Your task to perform on an android device: What's on my calendar today? Image 0: 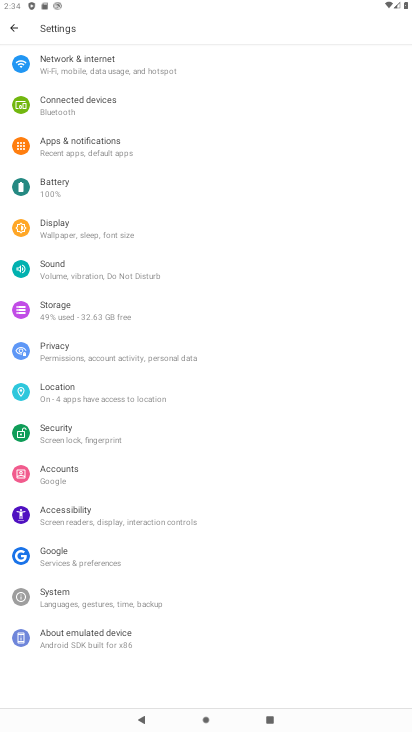
Step 0: press home button
Your task to perform on an android device: What's on my calendar today? Image 1: 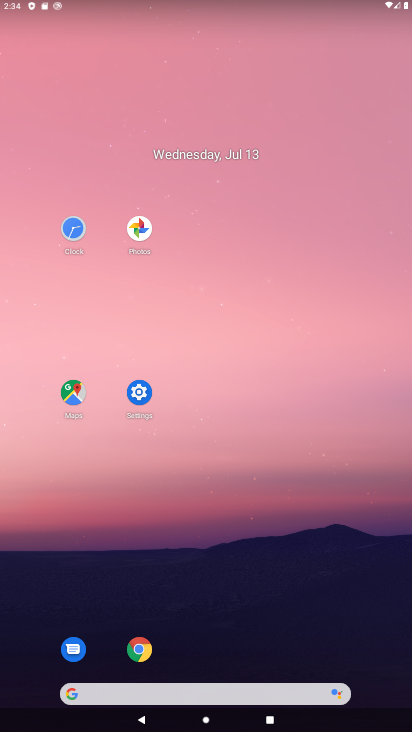
Step 1: drag from (259, 491) to (331, 52)
Your task to perform on an android device: What's on my calendar today? Image 2: 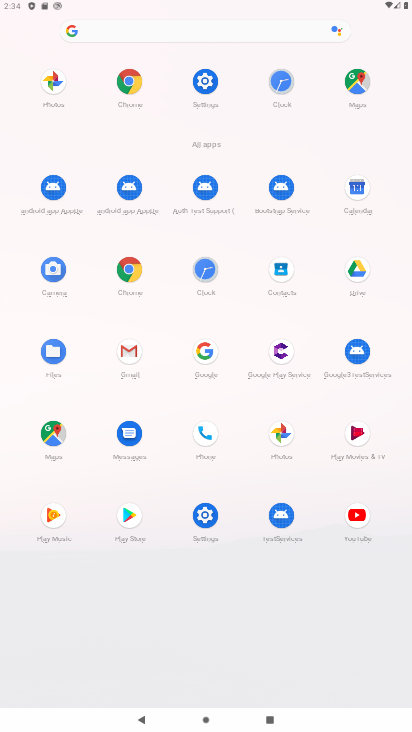
Step 2: click (356, 191)
Your task to perform on an android device: What's on my calendar today? Image 3: 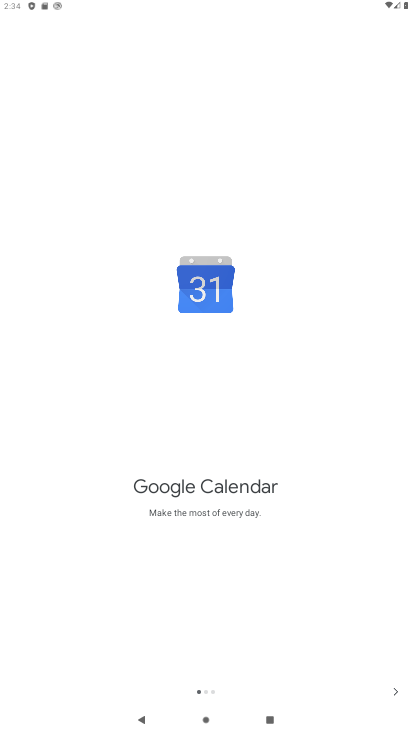
Step 3: click (400, 691)
Your task to perform on an android device: What's on my calendar today? Image 4: 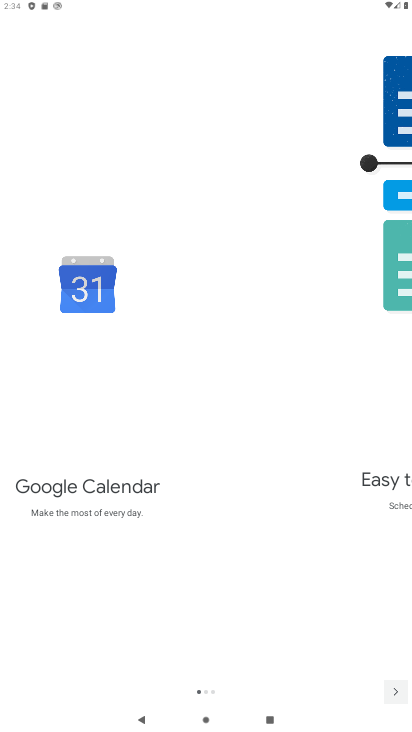
Step 4: click (399, 691)
Your task to perform on an android device: What's on my calendar today? Image 5: 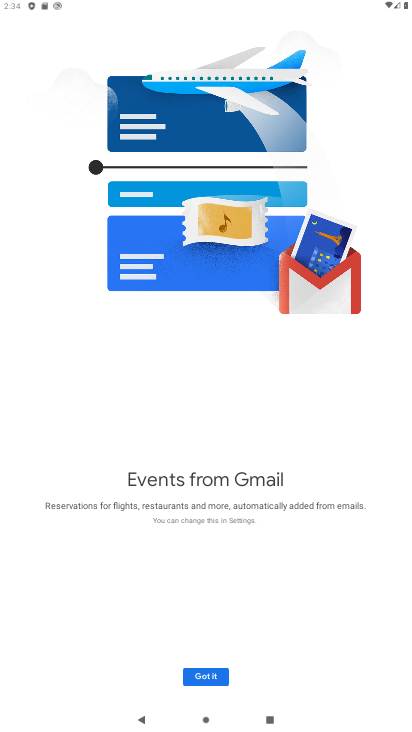
Step 5: click (205, 672)
Your task to perform on an android device: What's on my calendar today? Image 6: 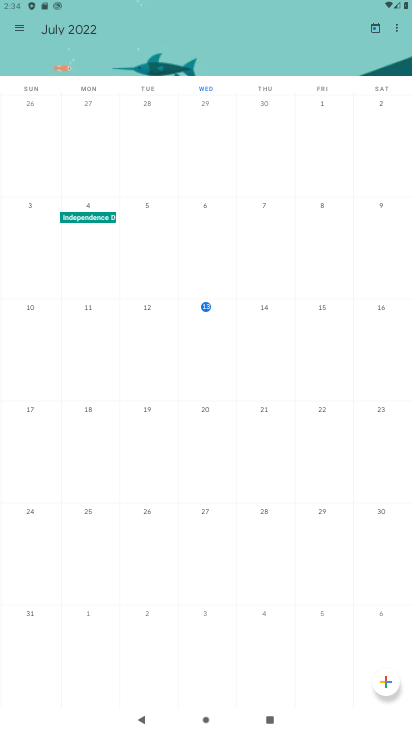
Step 6: click (203, 327)
Your task to perform on an android device: What's on my calendar today? Image 7: 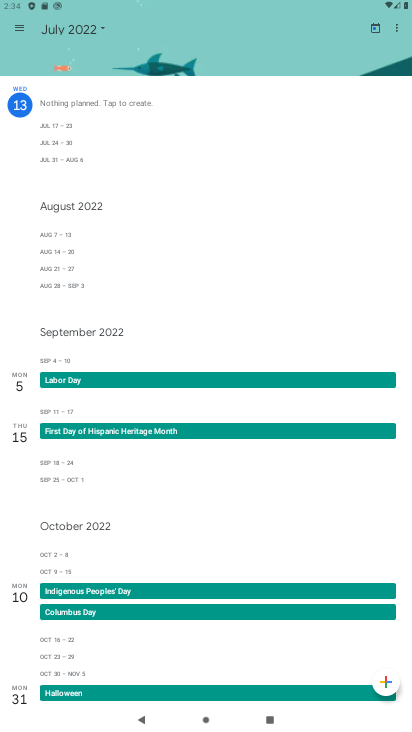
Step 7: task complete